Your task to perform on an android device: open device folders in google photos Image 0: 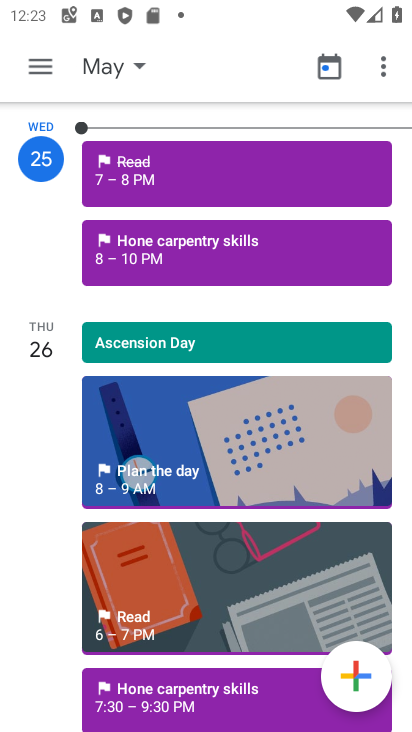
Step 0: press home button
Your task to perform on an android device: open device folders in google photos Image 1: 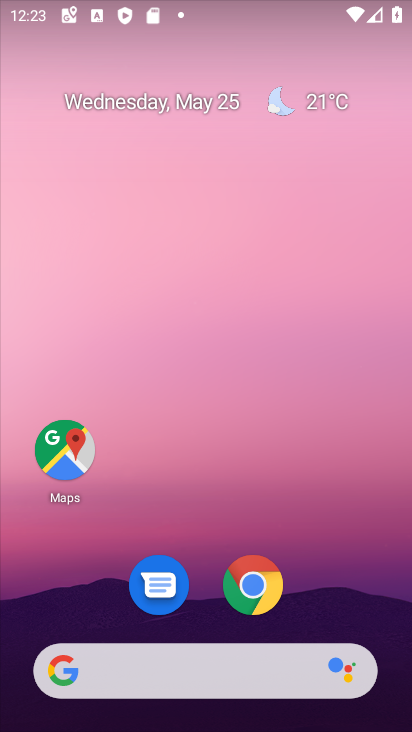
Step 1: drag from (337, 523) to (369, 54)
Your task to perform on an android device: open device folders in google photos Image 2: 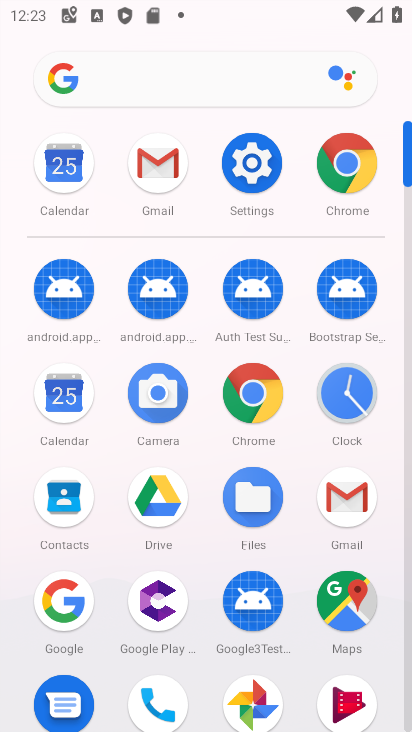
Step 2: click (250, 679)
Your task to perform on an android device: open device folders in google photos Image 3: 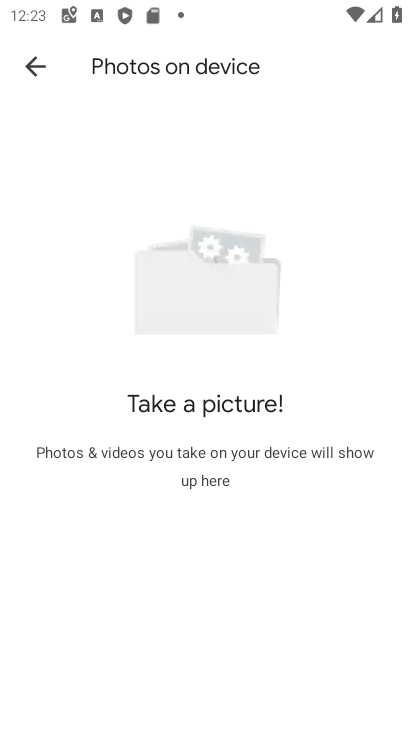
Step 3: click (32, 54)
Your task to perform on an android device: open device folders in google photos Image 4: 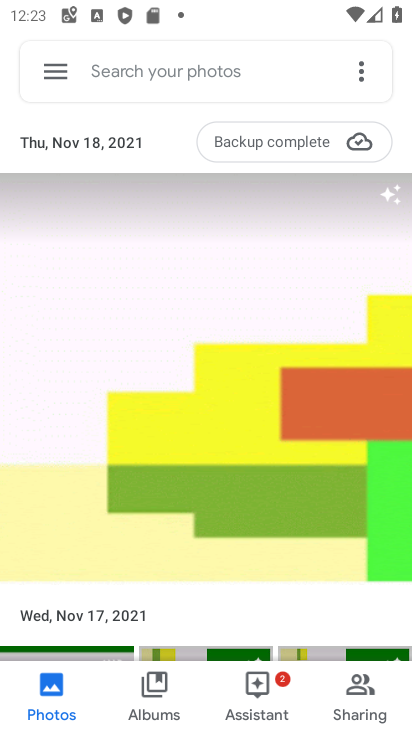
Step 4: click (40, 62)
Your task to perform on an android device: open device folders in google photos Image 5: 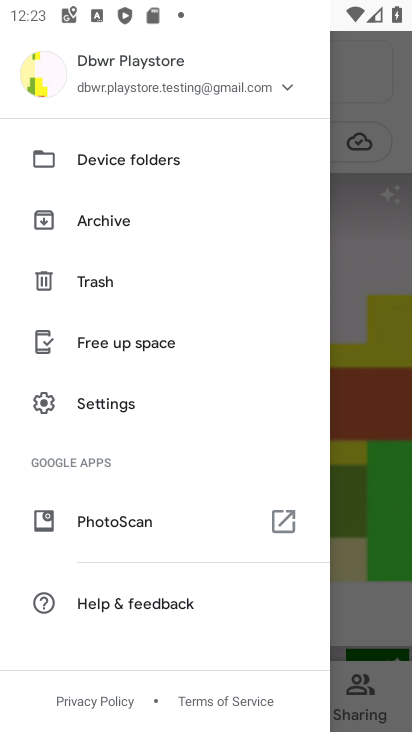
Step 5: click (59, 161)
Your task to perform on an android device: open device folders in google photos Image 6: 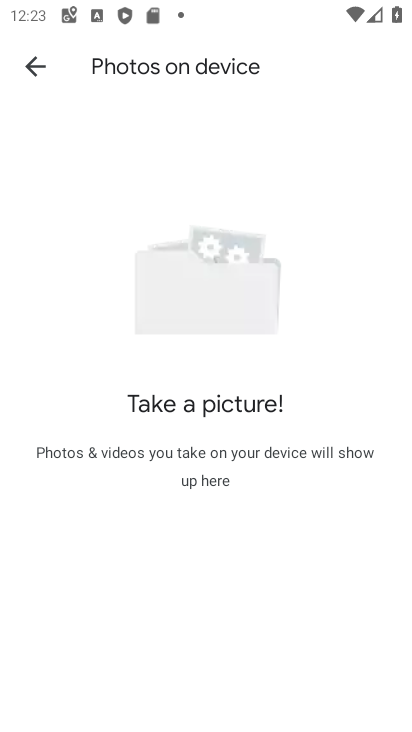
Step 6: task complete